Your task to perform on an android device: Open accessibility settings Image 0: 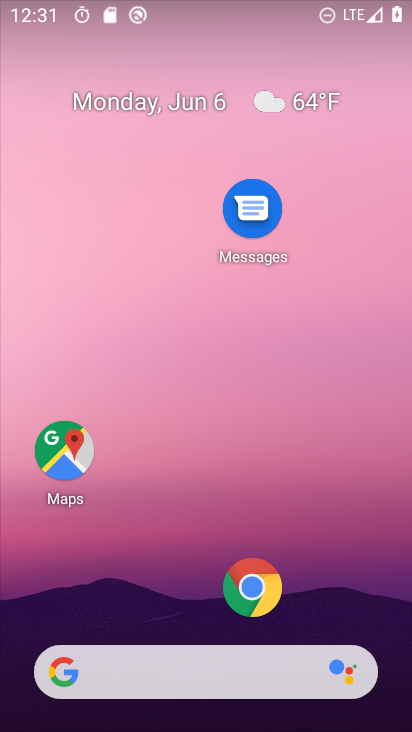
Step 0: drag from (153, 613) to (211, 14)
Your task to perform on an android device: Open accessibility settings Image 1: 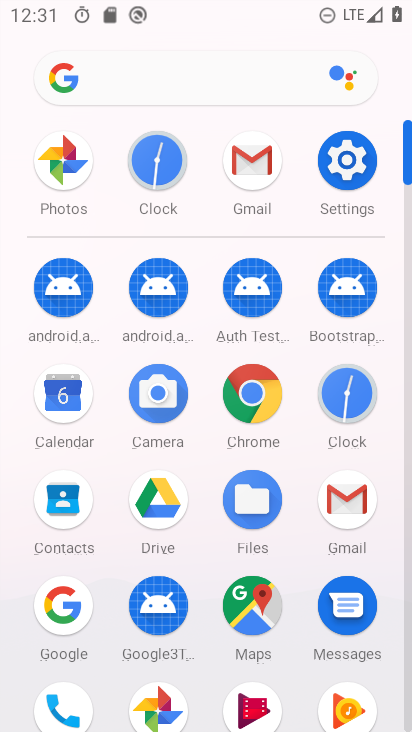
Step 1: click (357, 168)
Your task to perform on an android device: Open accessibility settings Image 2: 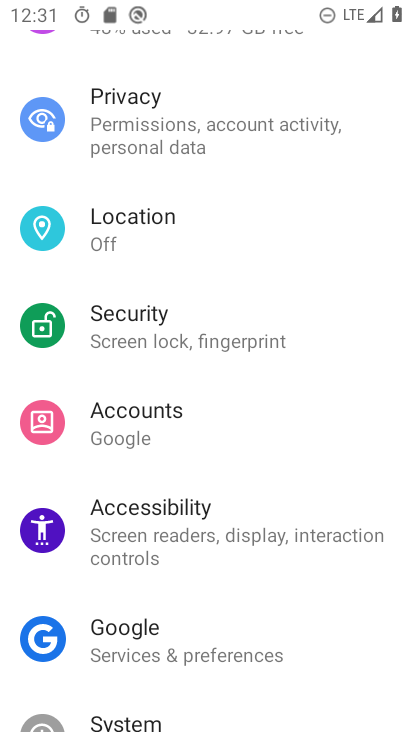
Step 2: click (155, 553)
Your task to perform on an android device: Open accessibility settings Image 3: 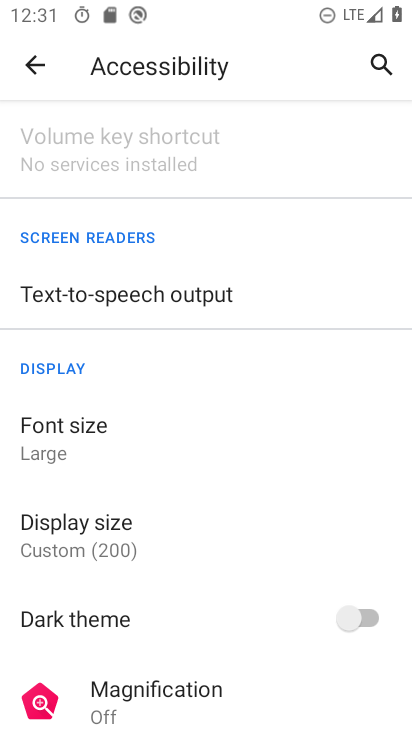
Step 3: task complete